Your task to perform on an android device: Go to location settings Image 0: 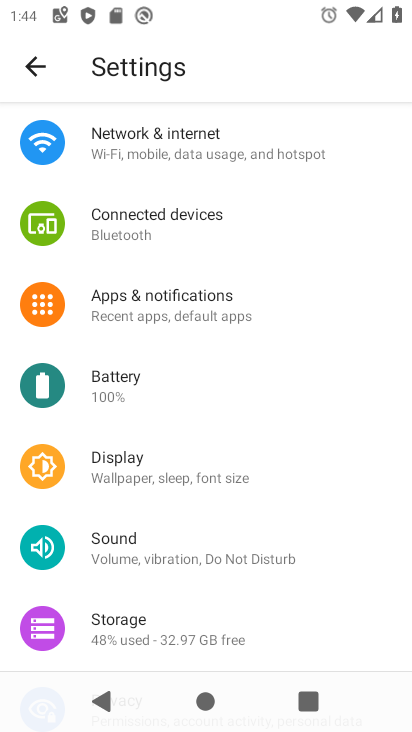
Step 0: press home button
Your task to perform on an android device: Go to location settings Image 1: 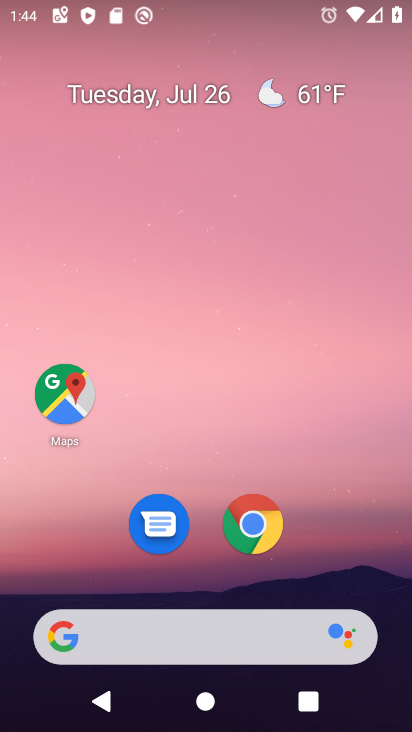
Step 1: drag from (183, 641) to (265, 30)
Your task to perform on an android device: Go to location settings Image 2: 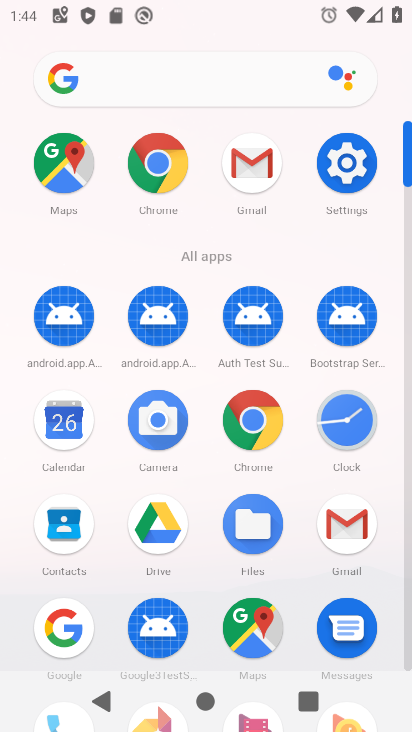
Step 2: click (358, 158)
Your task to perform on an android device: Go to location settings Image 3: 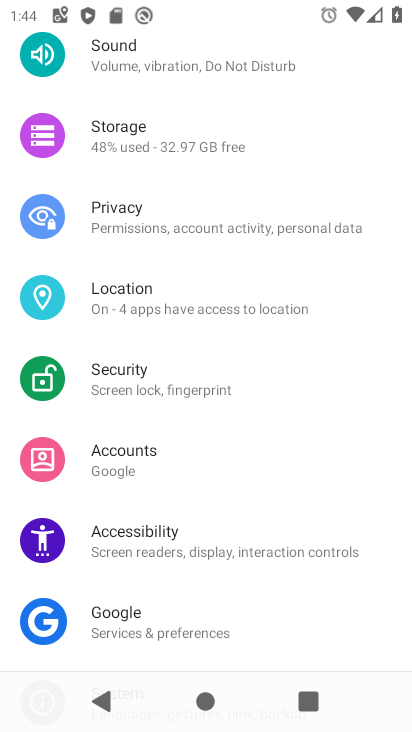
Step 3: click (137, 302)
Your task to perform on an android device: Go to location settings Image 4: 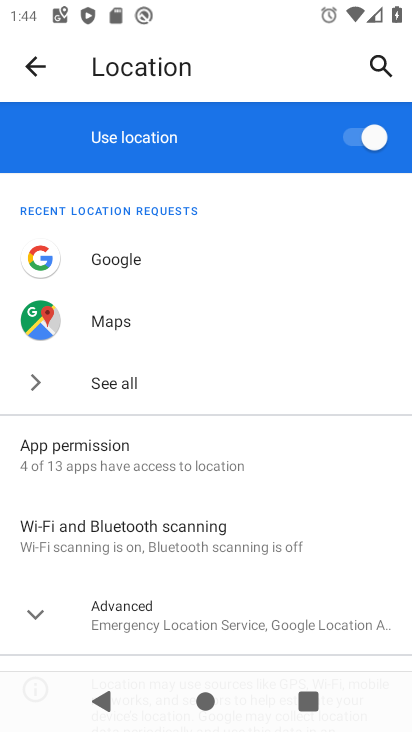
Step 4: task complete